Your task to perform on an android device: refresh tabs in the chrome app Image 0: 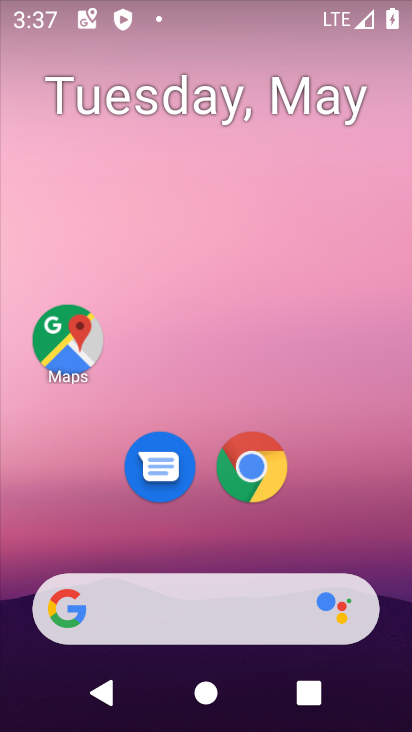
Step 0: click (265, 458)
Your task to perform on an android device: refresh tabs in the chrome app Image 1: 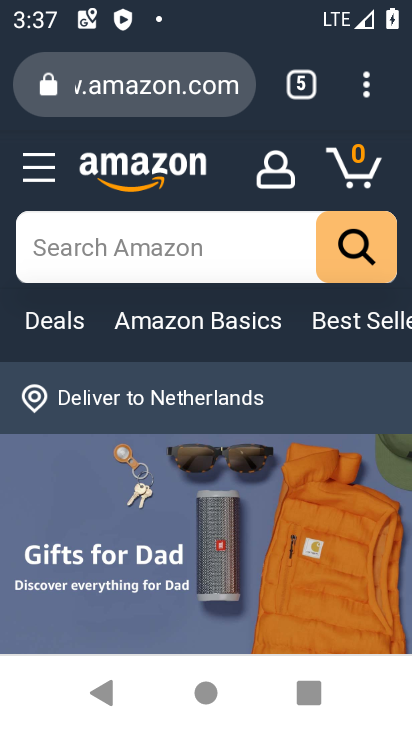
Step 1: click (370, 90)
Your task to perform on an android device: refresh tabs in the chrome app Image 2: 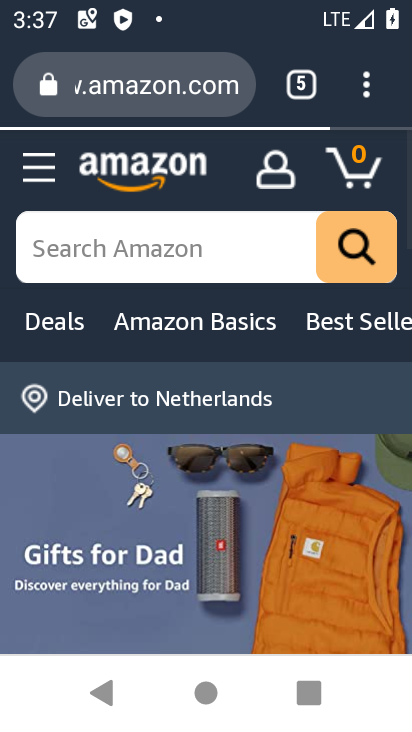
Step 2: click (364, 82)
Your task to perform on an android device: refresh tabs in the chrome app Image 3: 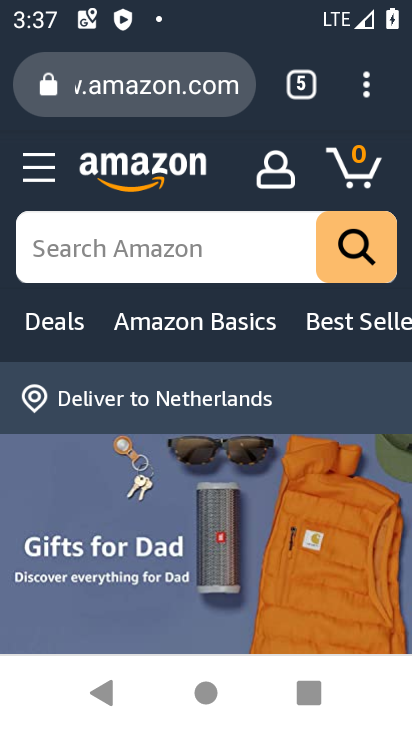
Step 3: click (395, 94)
Your task to perform on an android device: refresh tabs in the chrome app Image 4: 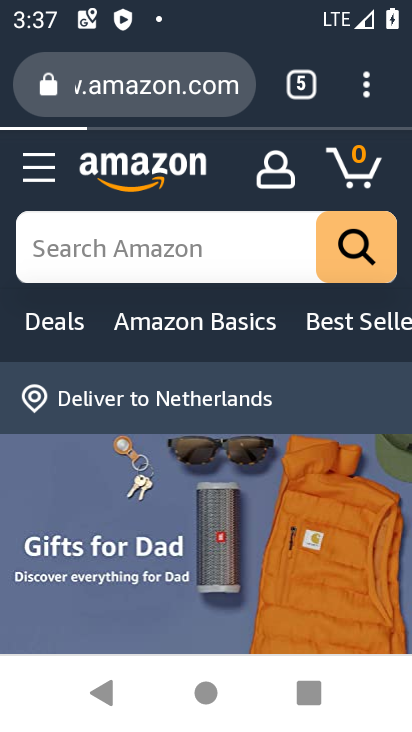
Step 4: click (362, 81)
Your task to perform on an android device: refresh tabs in the chrome app Image 5: 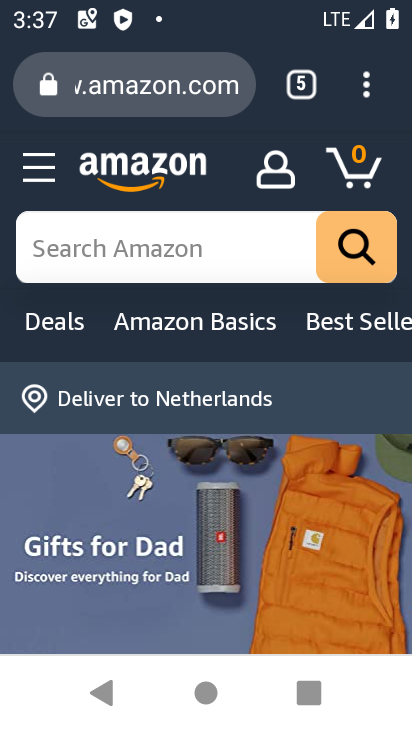
Step 5: click (367, 79)
Your task to perform on an android device: refresh tabs in the chrome app Image 6: 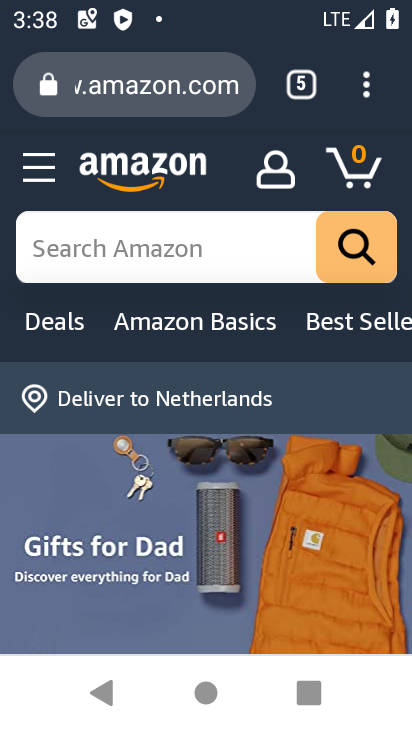
Step 6: task complete